Your task to perform on an android device: set the timer Image 0: 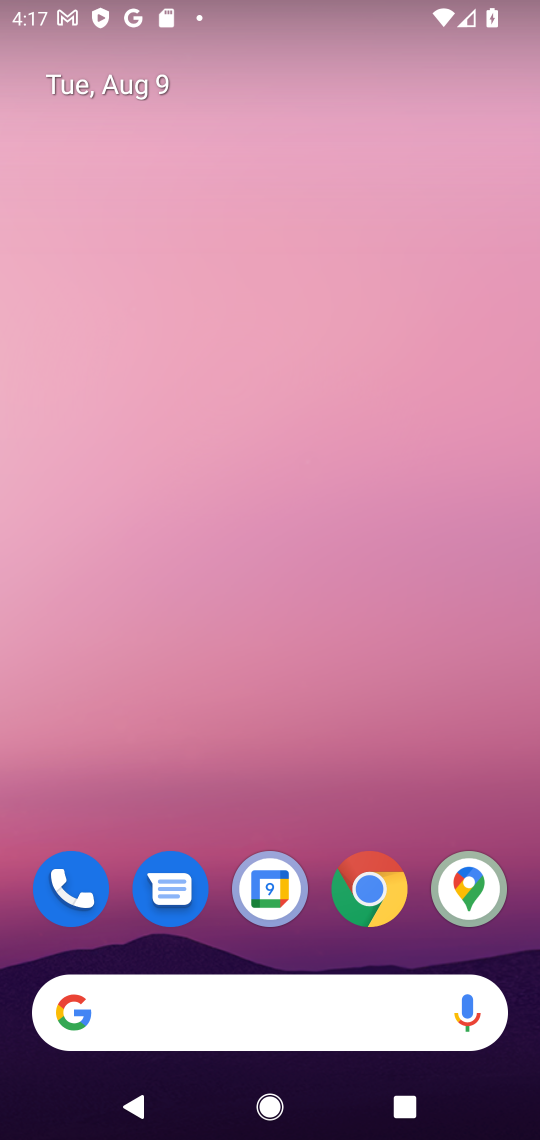
Step 0: drag from (263, 759) to (337, 0)
Your task to perform on an android device: set the timer Image 1: 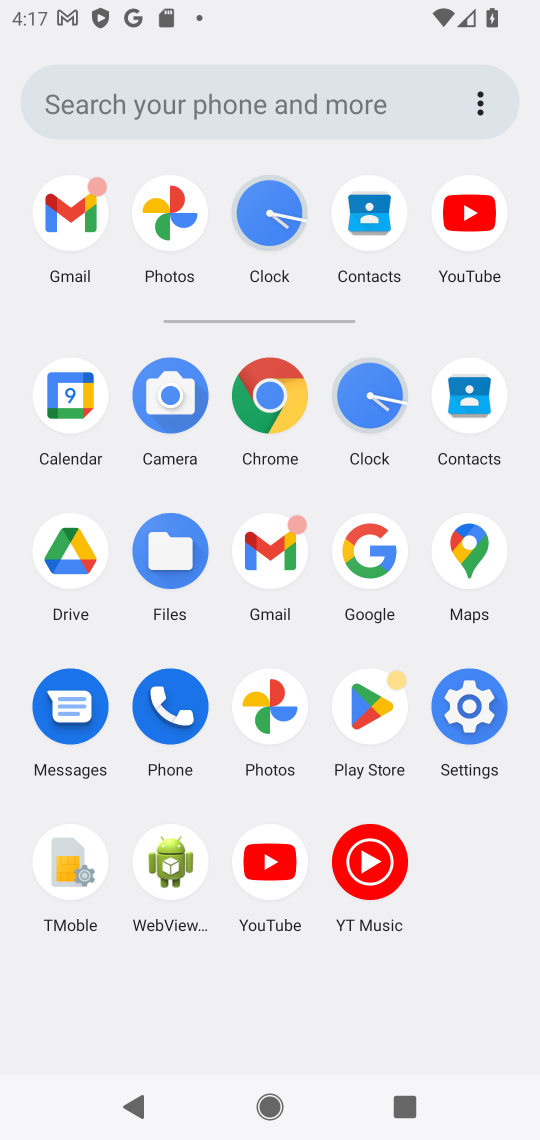
Step 1: click (70, 395)
Your task to perform on an android device: set the timer Image 2: 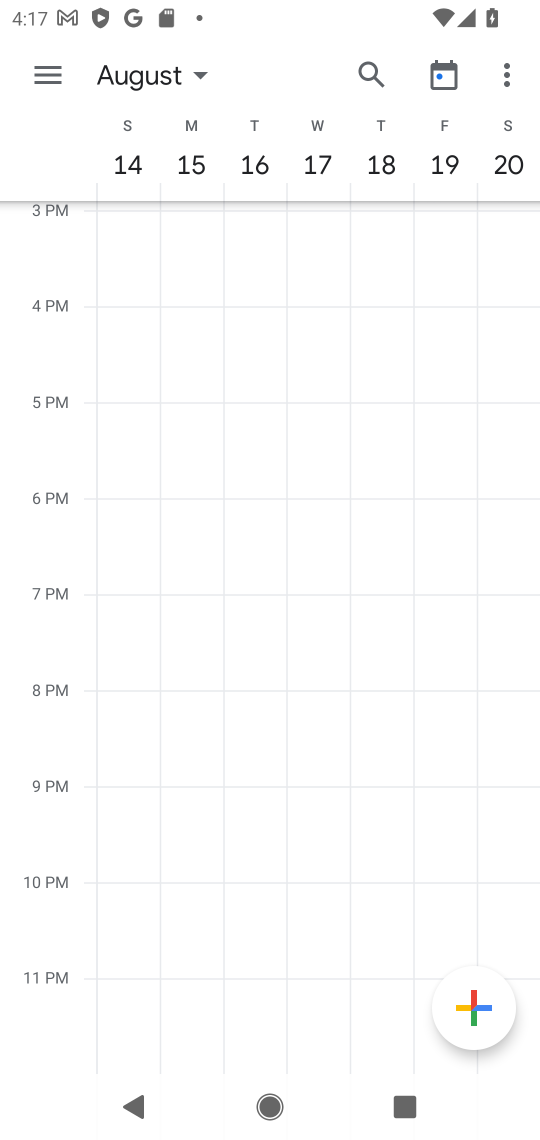
Step 2: press back button
Your task to perform on an android device: set the timer Image 3: 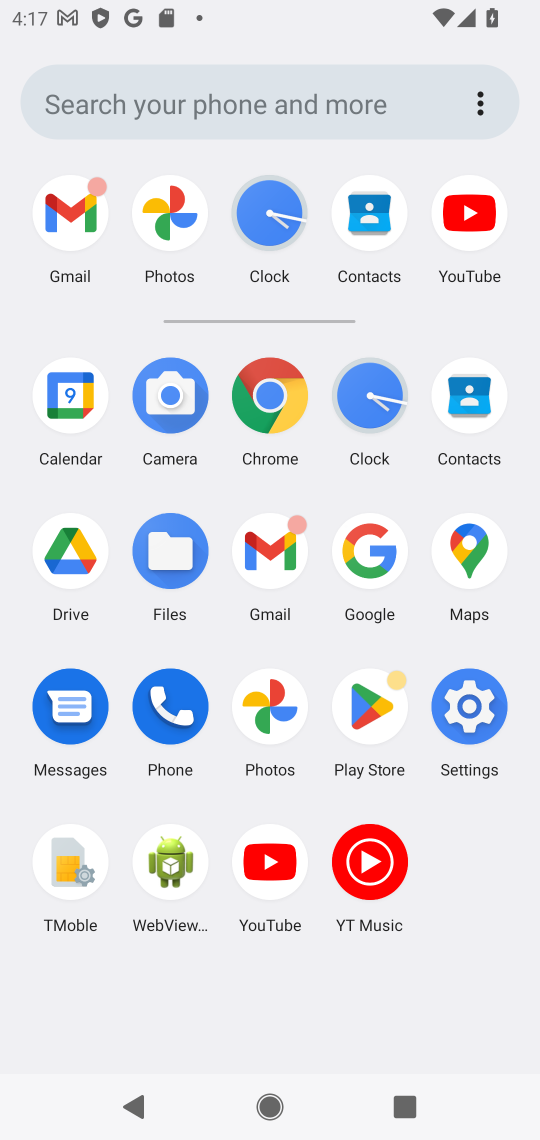
Step 3: click (281, 211)
Your task to perform on an android device: set the timer Image 4: 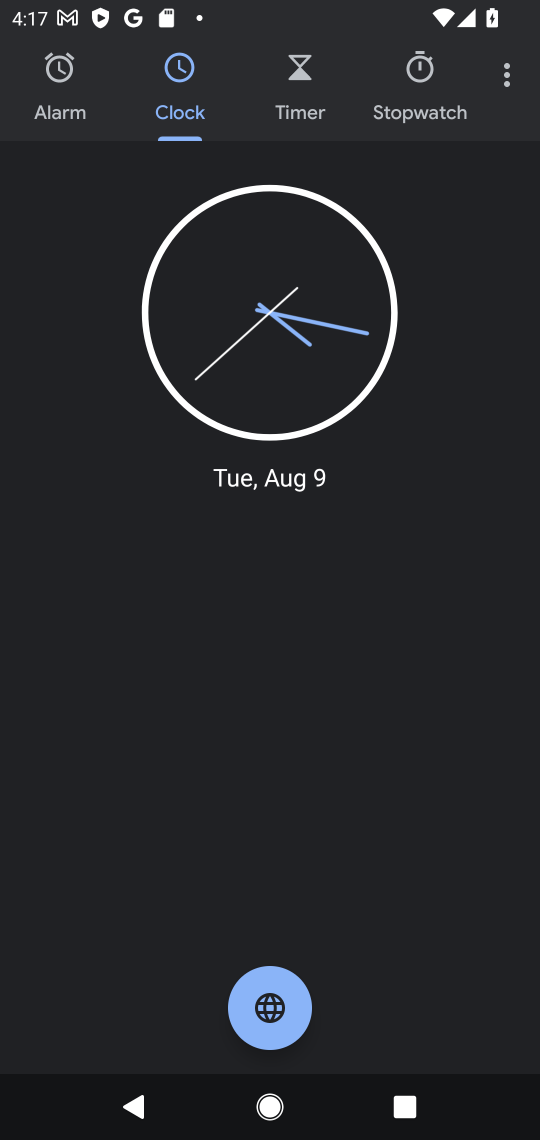
Step 4: click (302, 87)
Your task to perform on an android device: set the timer Image 5: 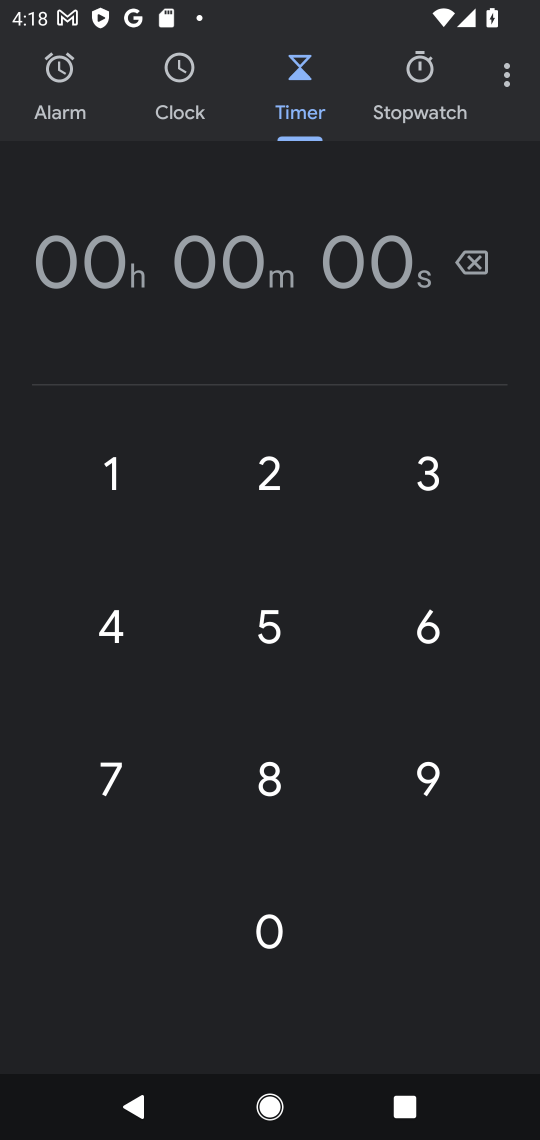
Step 5: task complete